Your task to perform on an android device: delete browsing data in the chrome app Image 0: 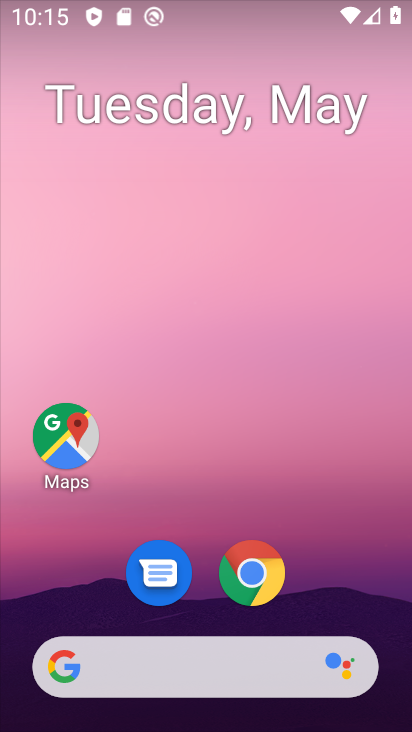
Step 0: click (240, 569)
Your task to perform on an android device: delete browsing data in the chrome app Image 1: 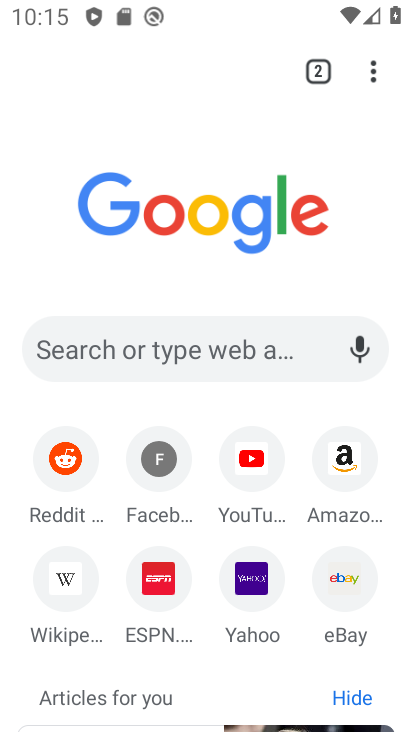
Step 1: drag from (368, 65) to (150, 611)
Your task to perform on an android device: delete browsing data in the chrome app Image 2: 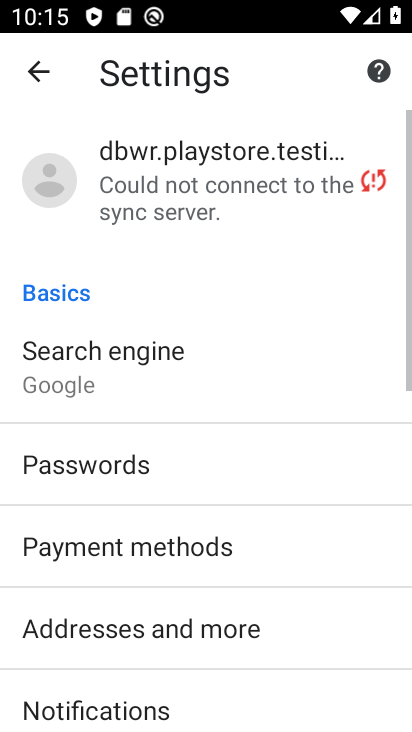
Step 2: drag from (262, 685) to (269, 211)
Your task to perform on an android device: delete browsing data in the chrome app Image 3: 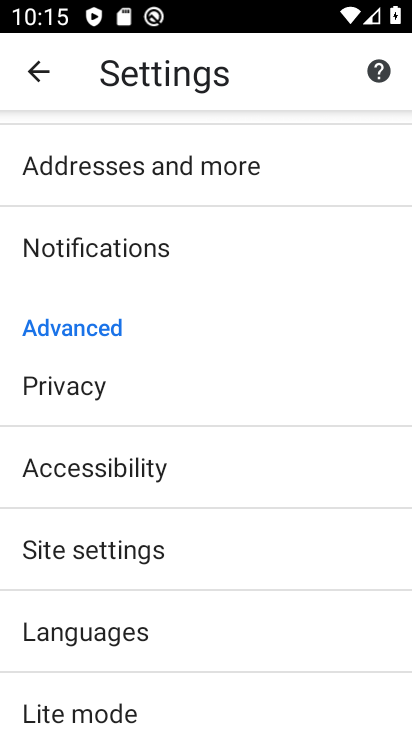
Step 3: click (101, 390)
Your task to perform on an android device: delete browsing data in the chrome app Image 4: 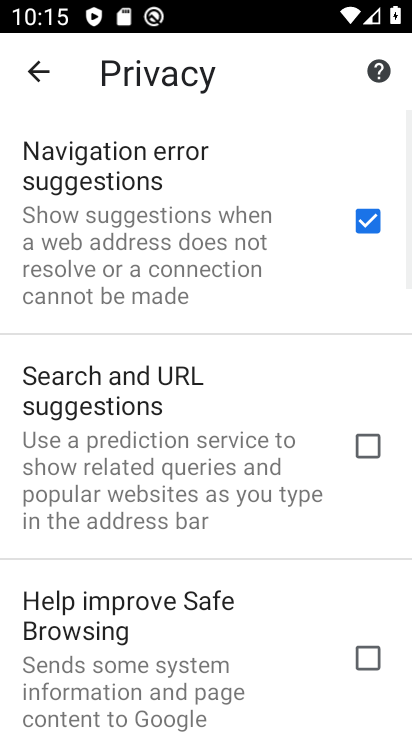
Step 4: drag from (264, 682) to (266, 179)
Your task to perform on an android device: delete browsing data in the chrome app Image 5: 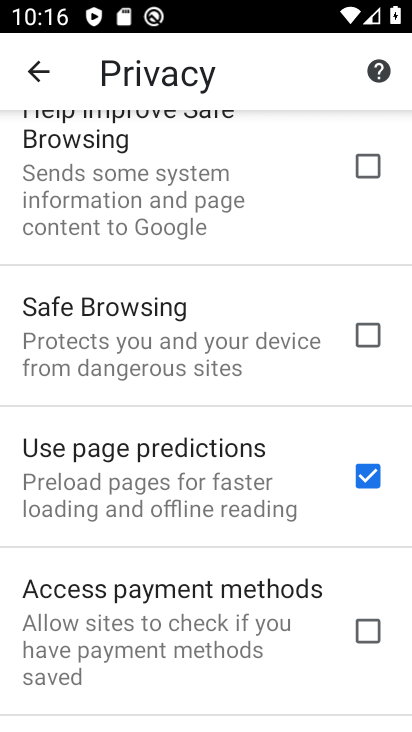
Step 5: drag from (292, 618) to (279, 192)
Your task to perform on an android device: delete browsing data in the chrome app Image 6: 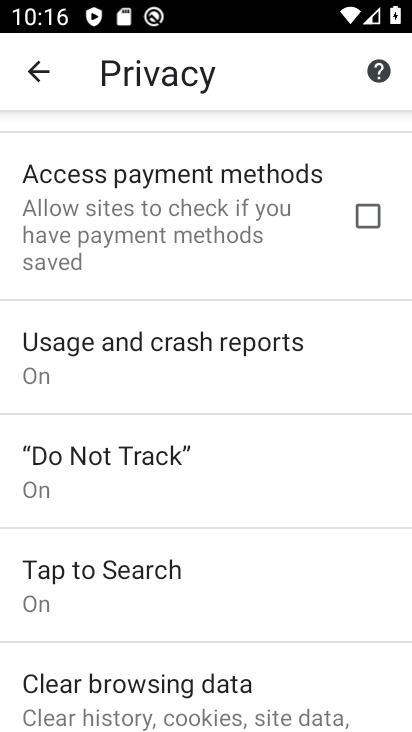
Step 6: drag from (265, 608) to (261, 213)
Your task to perform on an android device: delete browsing data in the chrome app Image 7: 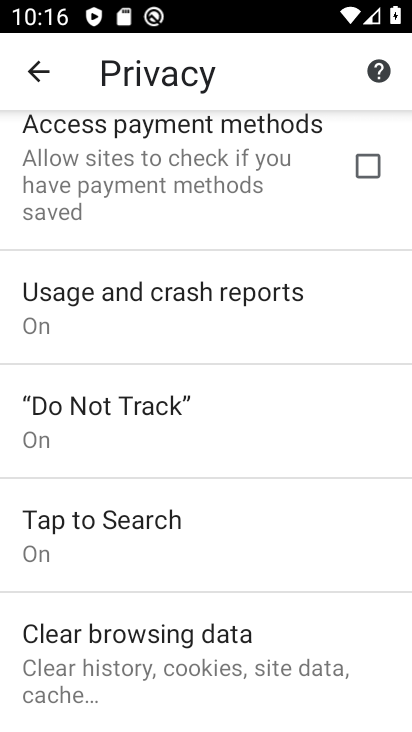
Step 7: click (134, 657)
Your task to perform on an android device: delete browsing data in the chrome app Image 8: 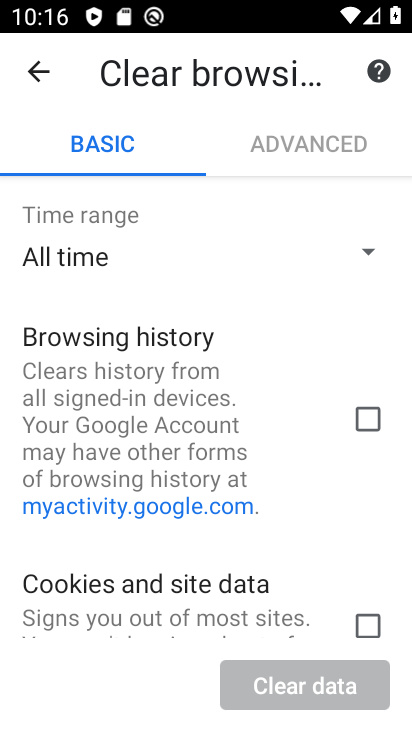
Step 8: click (376, 412)
Your task to perform on an android device: delete browsing data in the chrome app Image 9: 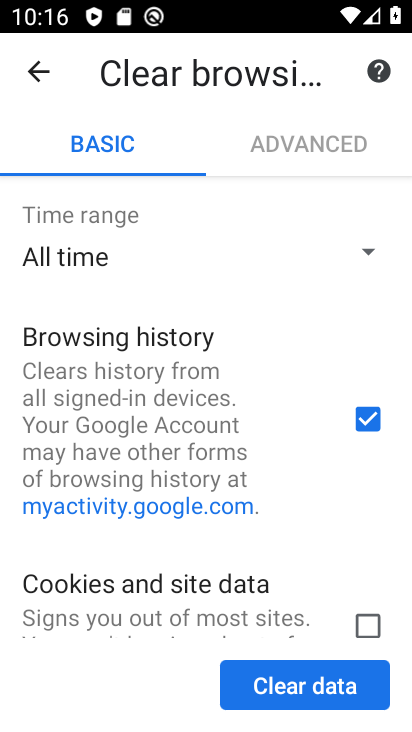
Step 9: click (347, 687)
Your task to perform on an android device: delete browsing data in the chrome app Image 10: 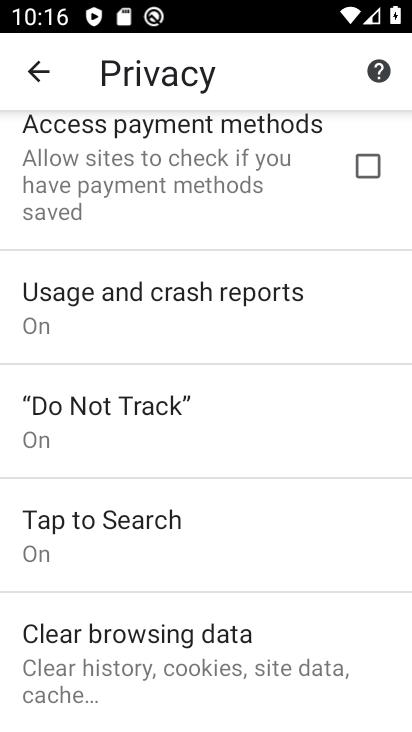
Step 10: task complete